Your task to perform on an android device: search for starred emails in the gmail app Image 0: 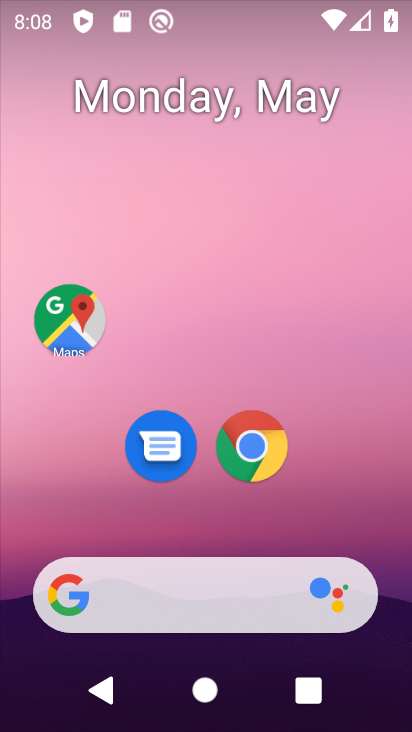
Step 0: drag from (388, 250) to (368, 7)
Your task to perform on an android device: search for starred emails in the gmail app Image 1: 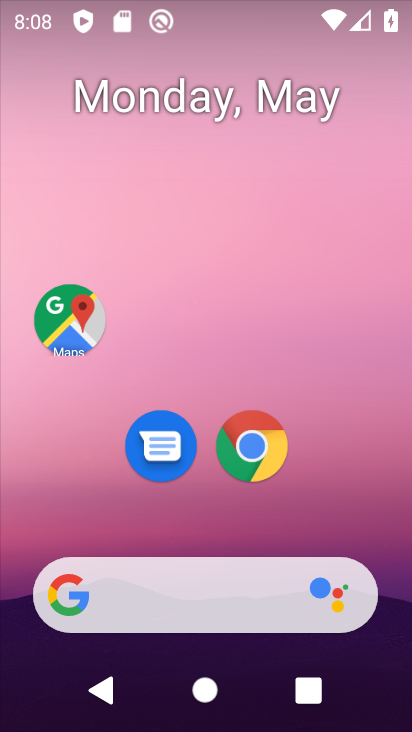
Step 1: drag from (357, 555) to (294, 12)
Your task to perform on an android device: search for starred emails in the gmail app Image 2: 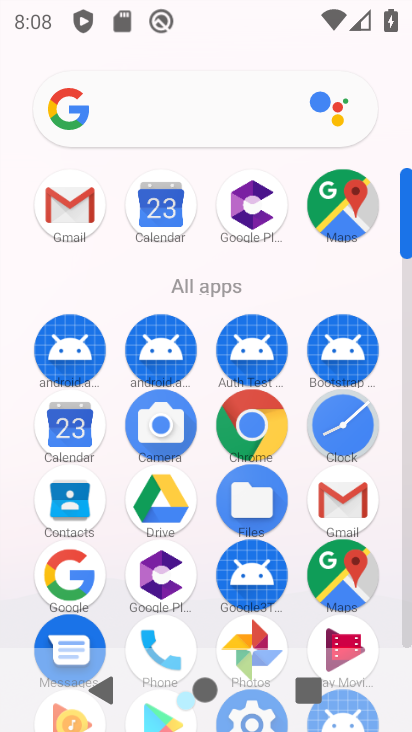
Step 2: click (61, 212)
Your task to perform on an android device: search for starred emails in the gmail app Image 3: 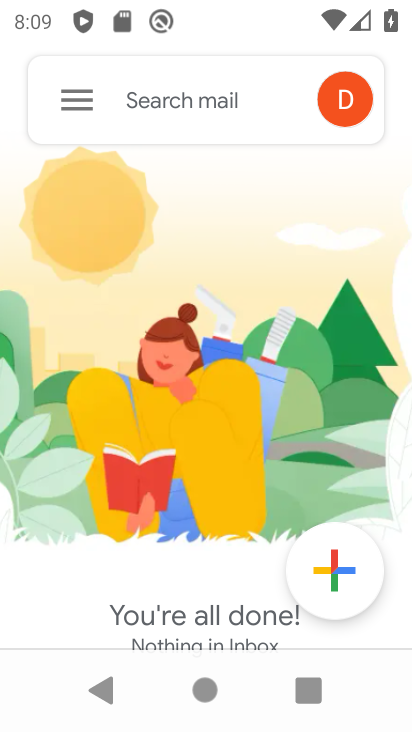
Step 3: click (71, 91)
Your task to perform on an android device: search for starred emails in the gmail app Image 4: 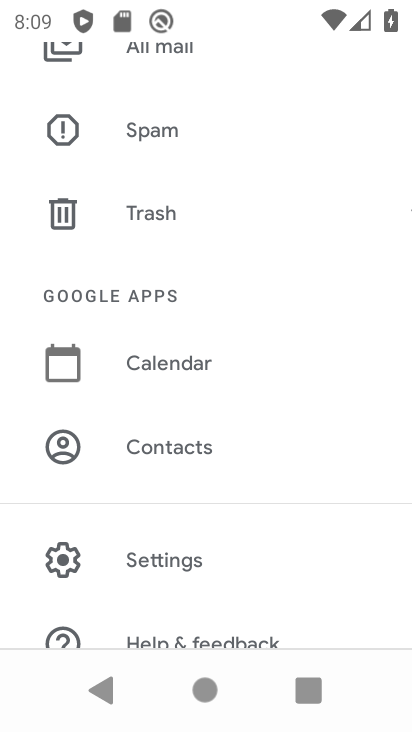
Step 4: drag from (204, 184) to (230, 569)
Your task to perform on an android device: search for starred emails in the gmail app Image 5: 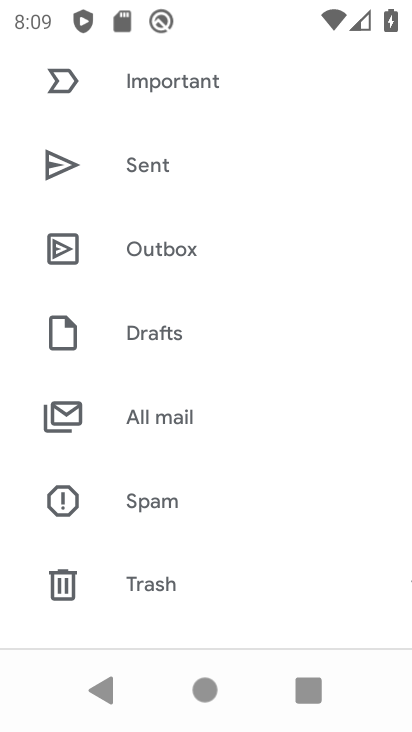
Step 5: drag from (378, 284) to (354, 590)
Your task to perform on an android device: search for starred emails in the gmail app Image 6: 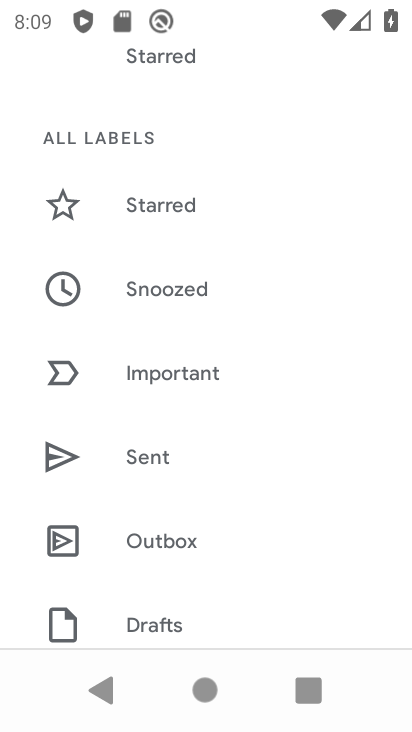
Step 6: click (182, 214)
Your task to perform on an android device: search for starred emails in the gmail app Image 7: 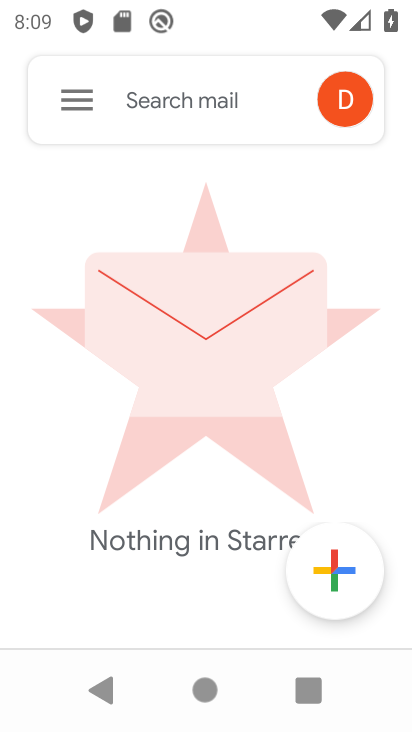
Step 7: task complete